Your task to perform on an android device: delete the emails in spam in the gmail app Image 0: 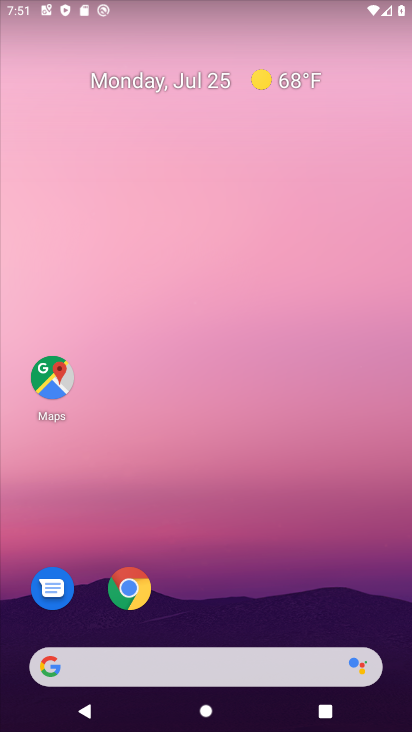
Step 0: drag from (356, 594) to (386, 106)
Your task to perform on an android device: delete the emails in spam in the gmail app Image 1: 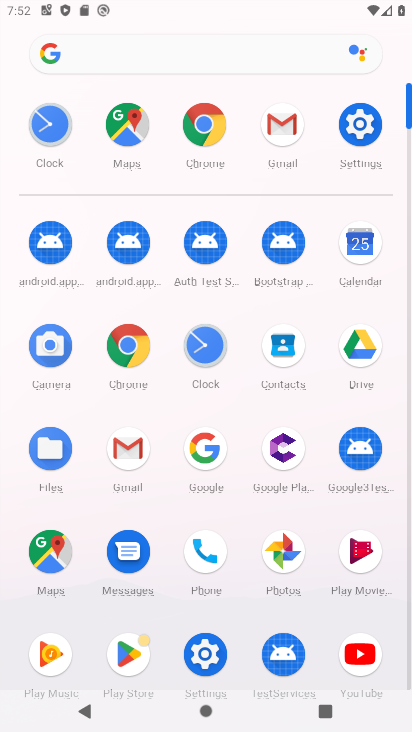
Step 1: click (290, 131)
Your task to perform on an android device: delete the emails in spam in the gmail app Image 2: 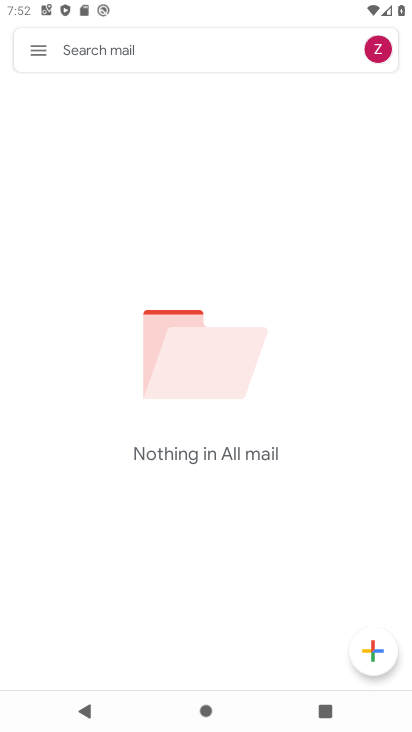
Step 2: click (46, 55)
Your task to perform on an android device: delete the emails in spam in the gmail app Image 3: 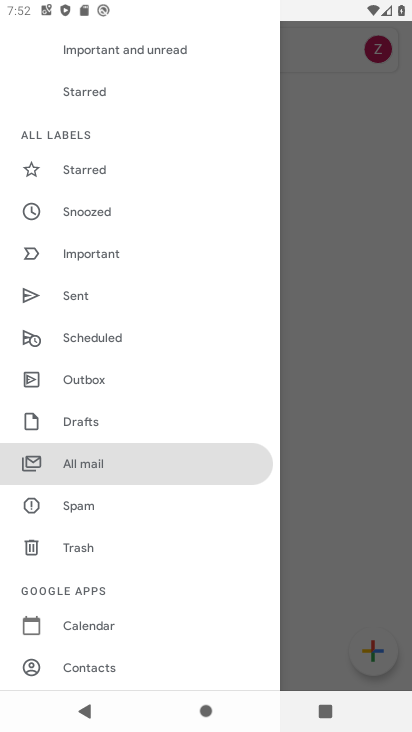
Step 3: drag from (195, 351) to (209, 176)
Your task to perform on an android device: delete the emails in spam in the gmail app Image 4: 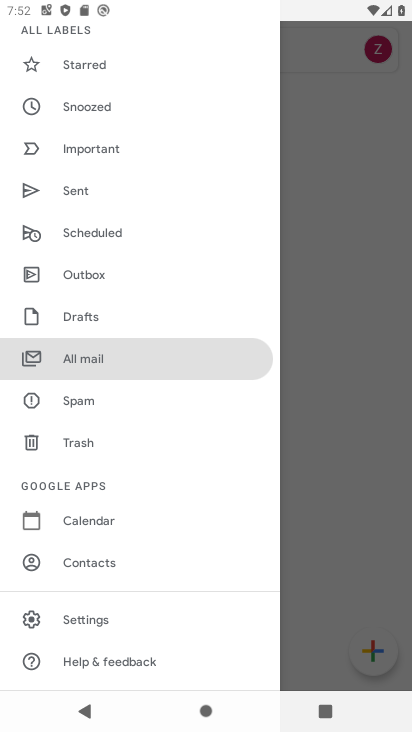
Step 4: click (192, 402)
Your task to perform on an android device: delete the emails in spam in the gmail app Image 5: 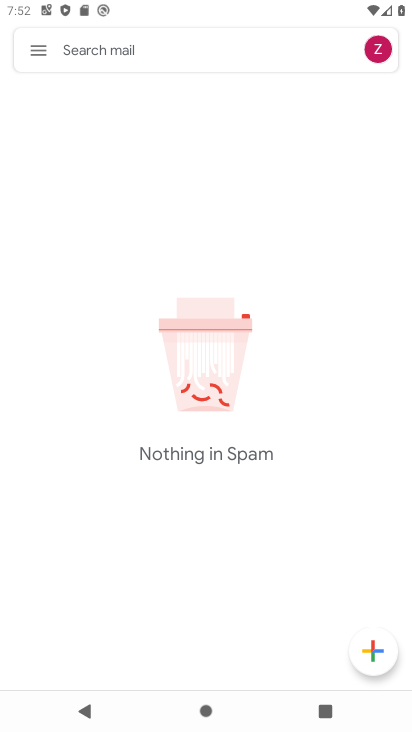
Step 5: task complete